Your task to perform on an android device: Check the news Image 0: 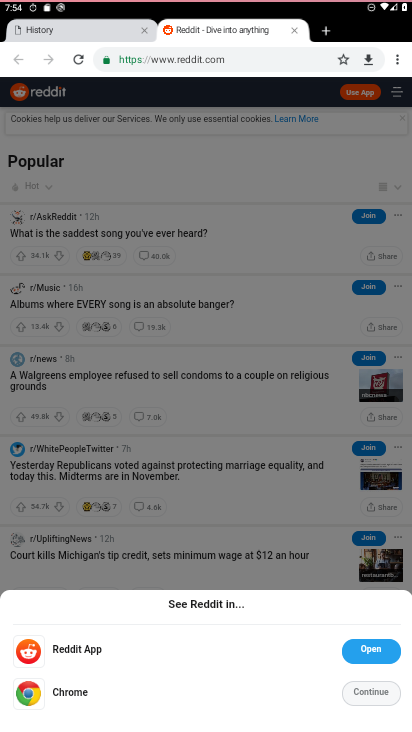
Step 0: drag from (186, 534) to (231, 178)
Your task to perform on an android device: Check the news Image 1: 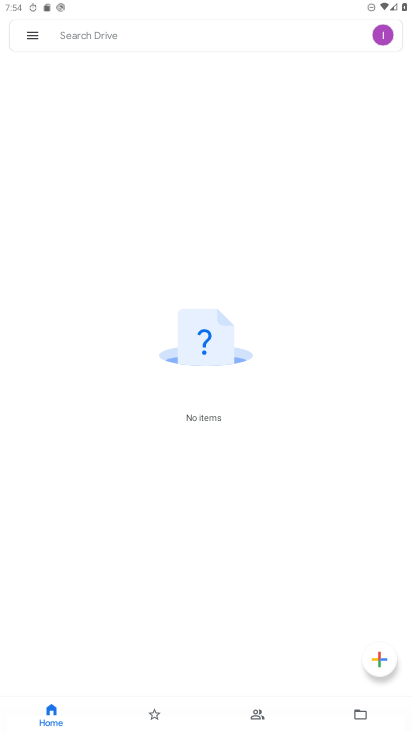
Step 1: press home button
Your task to perform on an android device: Check the news Image 2: 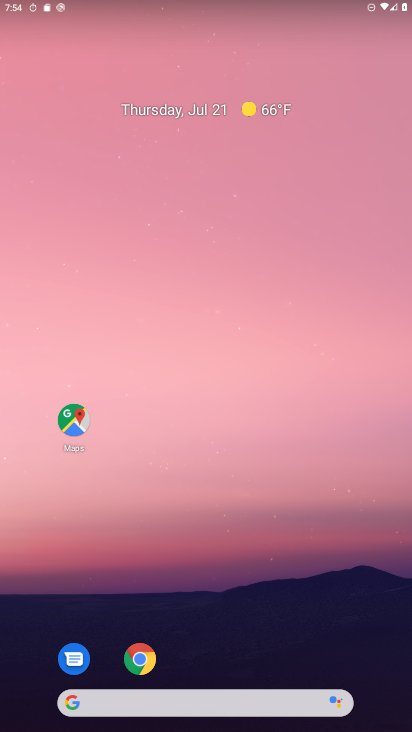
Step 2: drag from (200, 663) to (272, 112)
Your task to perform on an android device: Check the news Image 3: 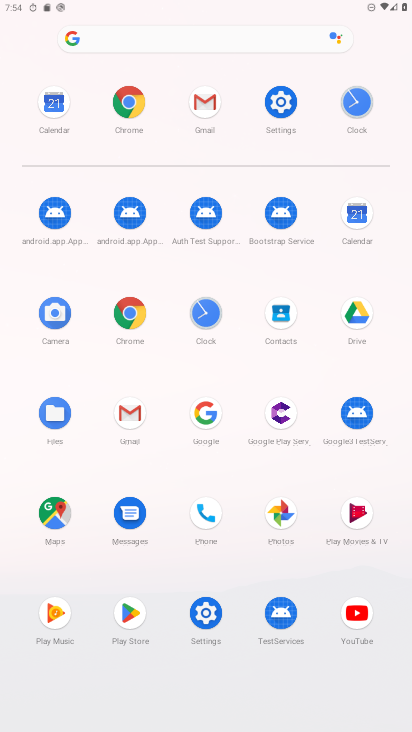
Step 3: click (179, 30)
Your task to perform on an android device: Check the news Image 4: 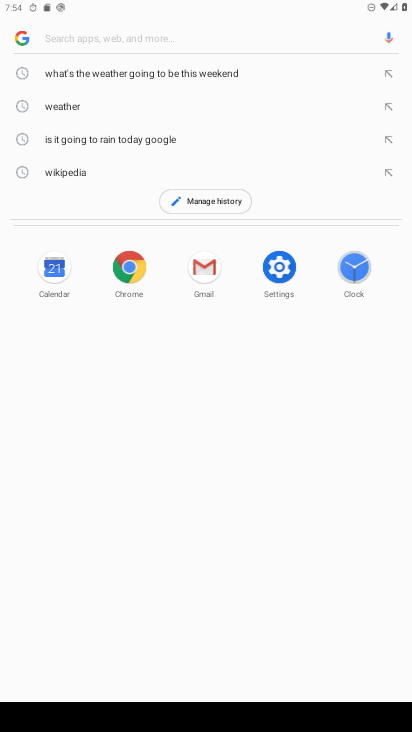
Step 4: type "news"
Your task to perform on an android device: Check the news Image 5: 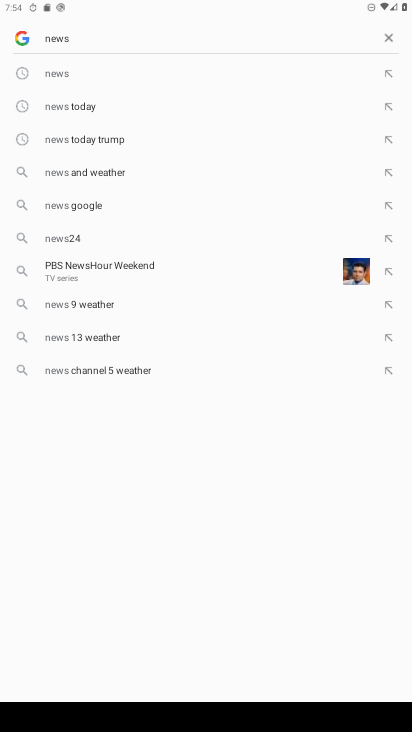
Step 5: click (66, 70)
Your task to perform on an android device: Check the news Image 6: 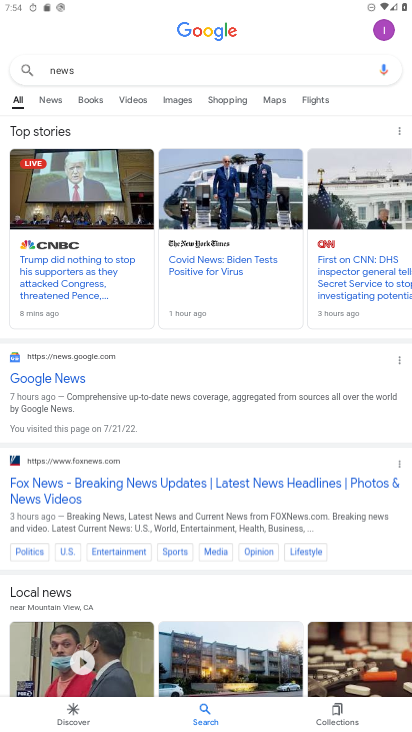
Step 6: drag from (130, 406) to (167, 271)
Your task to perform on an android device: Check the news Image 7: 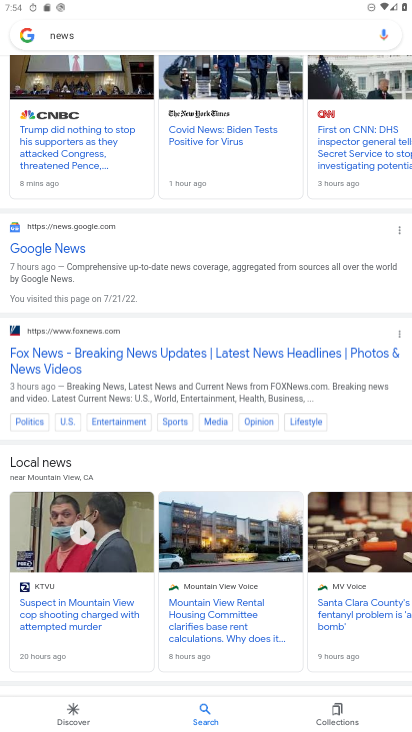
Step 7: drag from (275, 255) to (275, 727)
Your task to perform on an android device: Check the news Image 8: 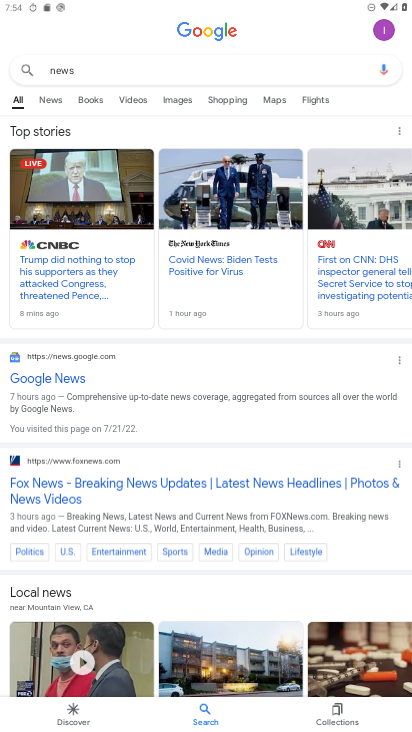
Step 8: drag from (192, 423) to (229, 254)
Your task to perform on an android device: Check the news Image 9: 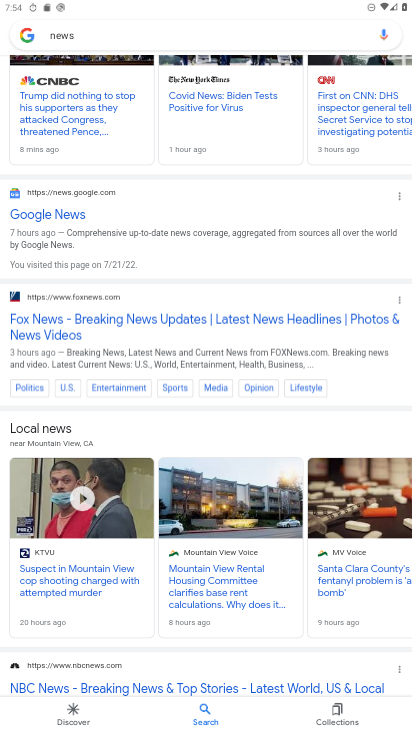
Step 9: click (45, 215)
Your task to perform on an android device: Check the news Image 10: 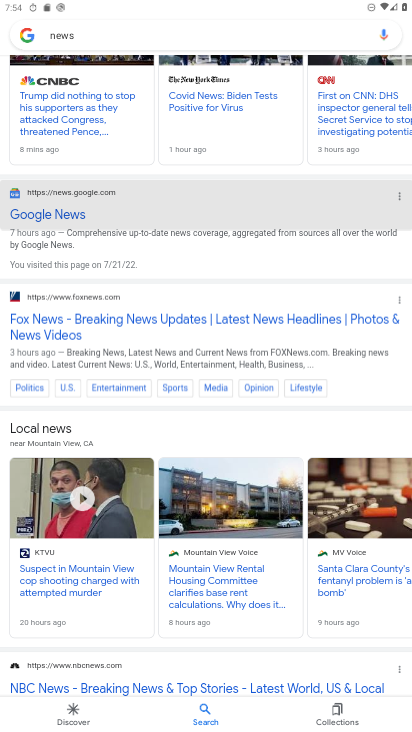
Step 10: task complete